Your task to perform on an android device: toggle show notifications on the lock screen Image 0: 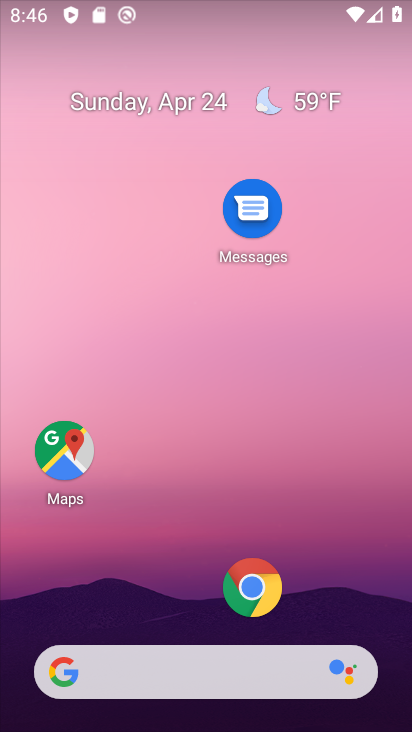
Step 0: drag from (169, 599) to (181, 0)
Your task to perform on an android device: toggle show notifications on the lock screen Image 1: 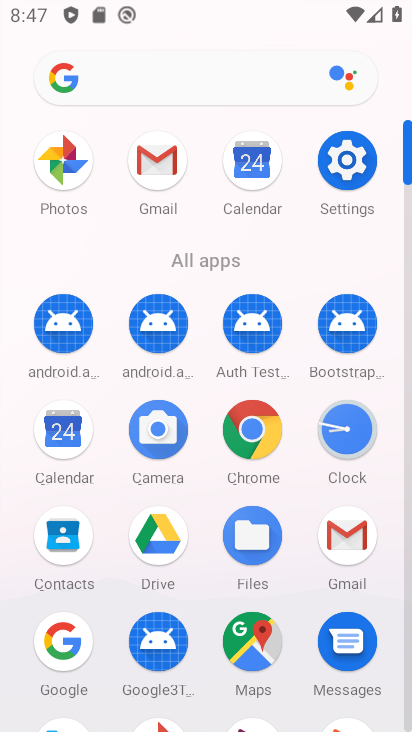
Step 1: click (362, 175)
Your task to perform on an android device: toggle show notifications on the lock screen Image 2: 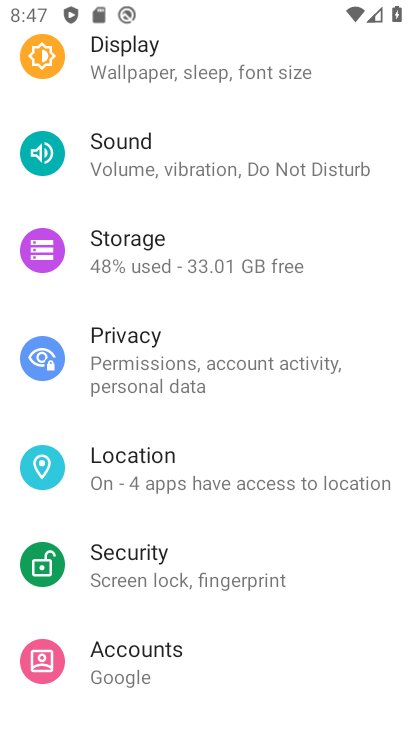
Step 2: drag from (224, 144) to (170, 730)
Your task to perform on an android device: toggle show notifications on the lock screen Image 3: 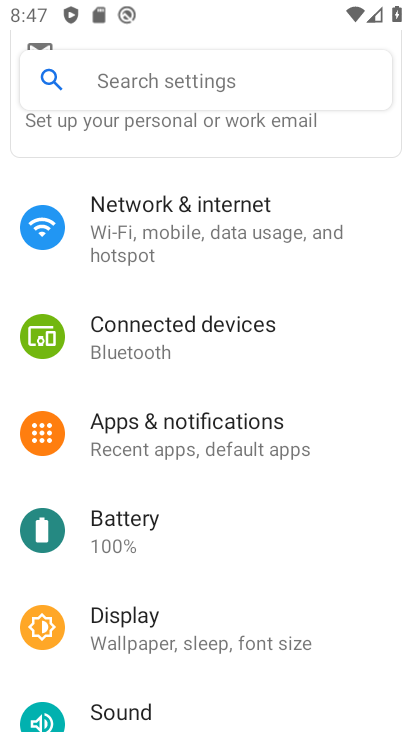
Step 3: click (194, 445)
Your task to perform on an android device: toggle show notifications on the lock screen Image 4: 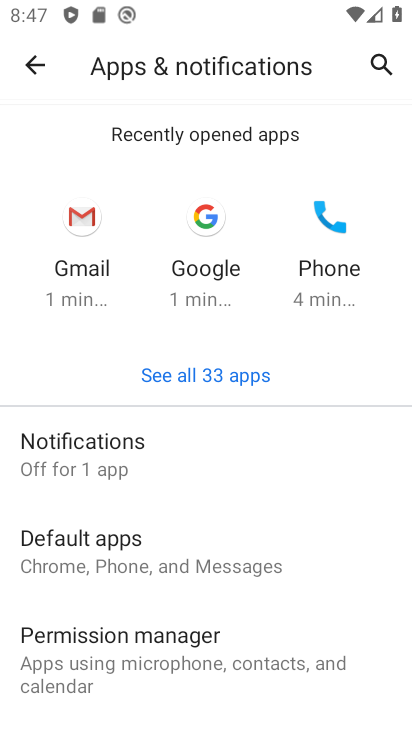
Step 4: drag from (191, 610) to (189, 379)
Your task to perform on an android device: toggle show notifications on the lock screen Image 5: 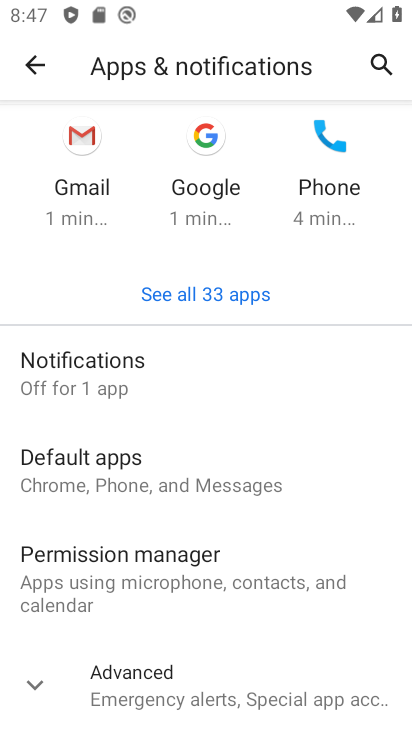
Step 5: click (74, 380)
Your task to perform on an android device: toggle show notifications on the lock screen Image 6: 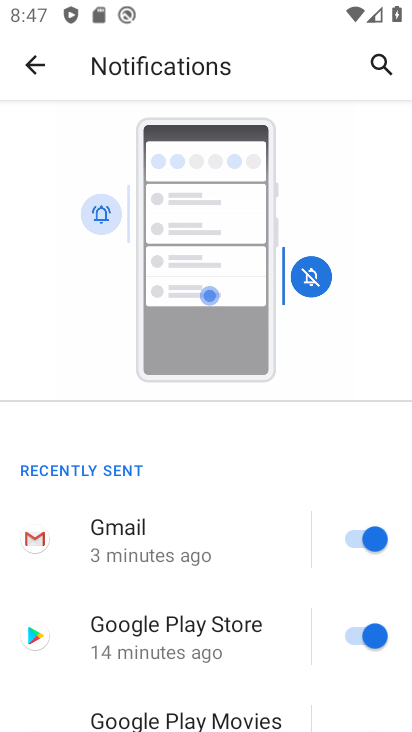
Step 6: drag from (77, 594) to (121, 213)
Your task to perform on an android device: toggle show notifications on the lock screen Image 7: 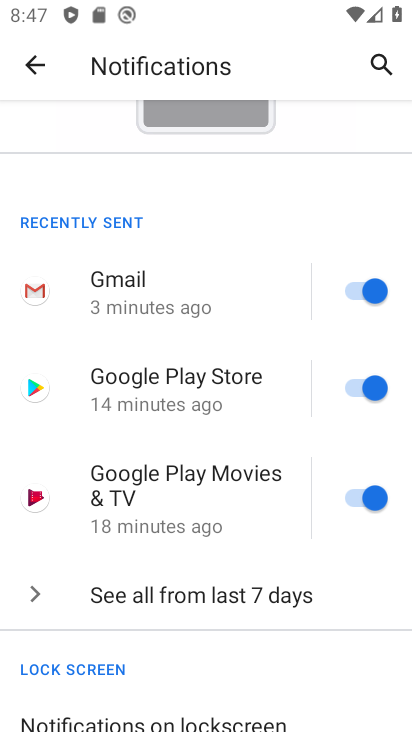
Step 7: drag from (112, 520) to (169, 204)
Your task to perform on an android device: toggle show notifications on the lock screen Image 8: 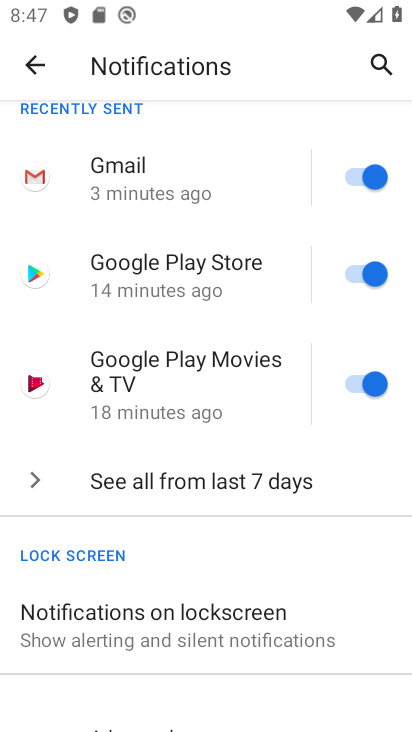
Step 8: click (165, 635)
Your task to perform on an android device: toggle show notifications on the lock screen Image 9: 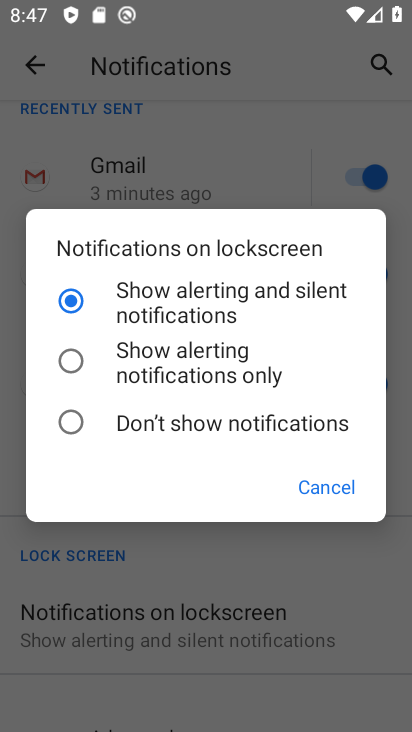
Step 9: click (74, 419)
Your task to perform on an android device: toggle show notifications on the lock screen Image 10: 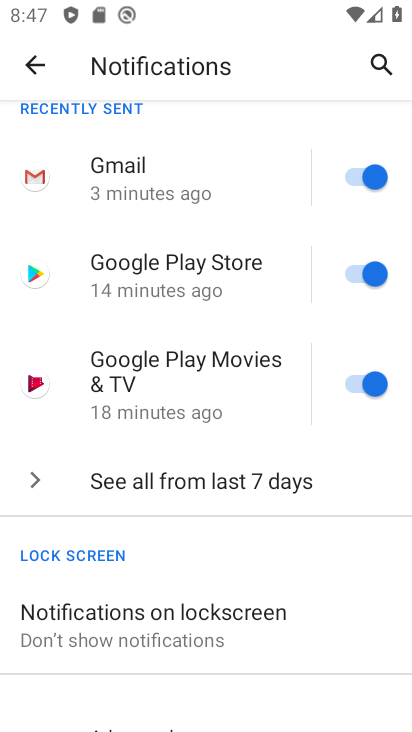
Step 10: task complete